Your task to perform on an android device: turn on location history Image 0: 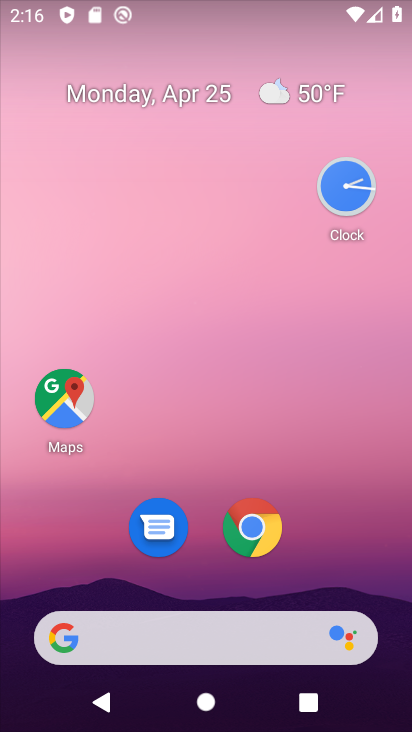
Step 0: drag from (344, 575) to (299, 90)
Your task to perform on an android device: turn on location history Image 1: 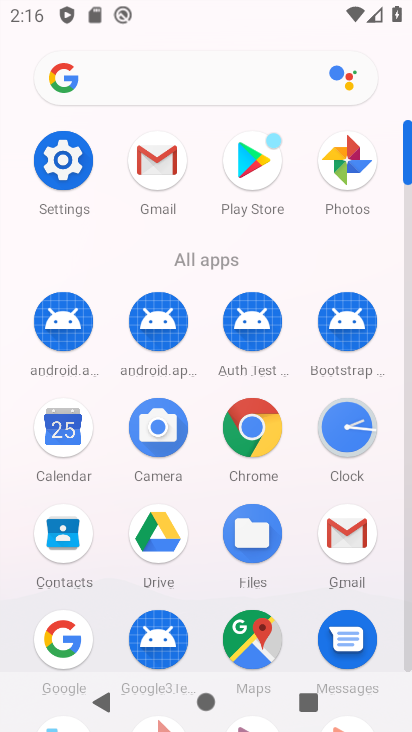
Step 1: drag from (290, 446) to (289, 234)
Your task to perform on an android device: turn on location history Image 2: 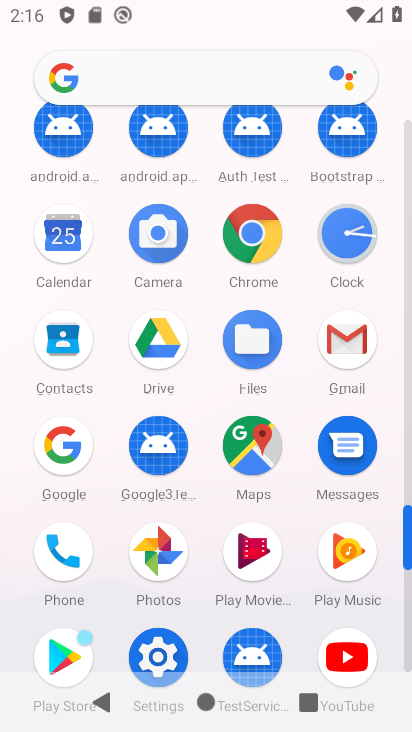
Step 2: drag from (200, 605) to (191, 439)
Your task to perform on an android device: turn on location history Image 3: 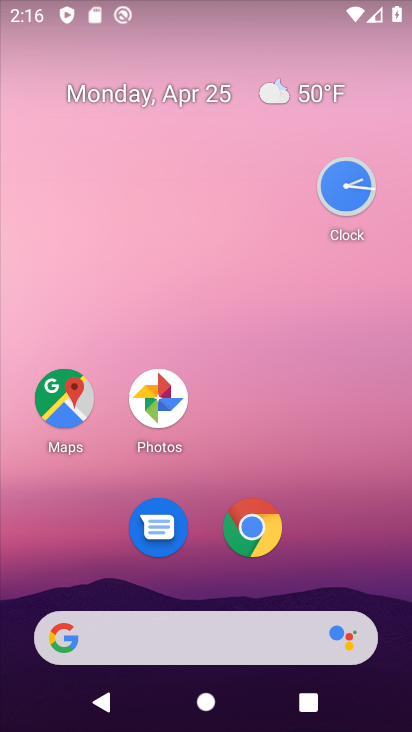
Step 3: drag from (336, 555) to (314, 137)
Your task to perform on an android device: turn on location history Image 4: 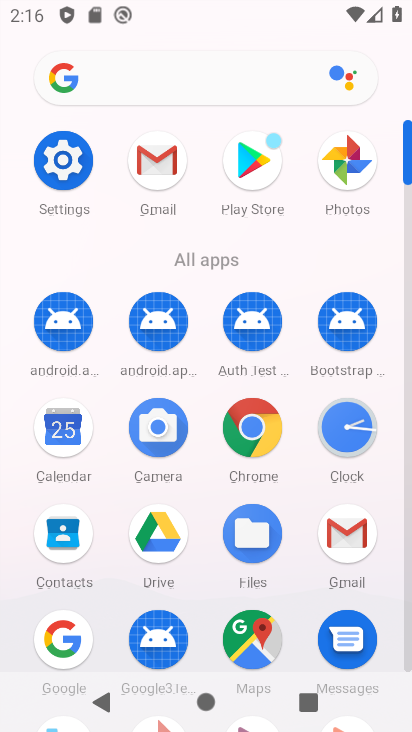
Step 4: click (61, 183)
Your task to perform on an android device: turn on location history Image 5: 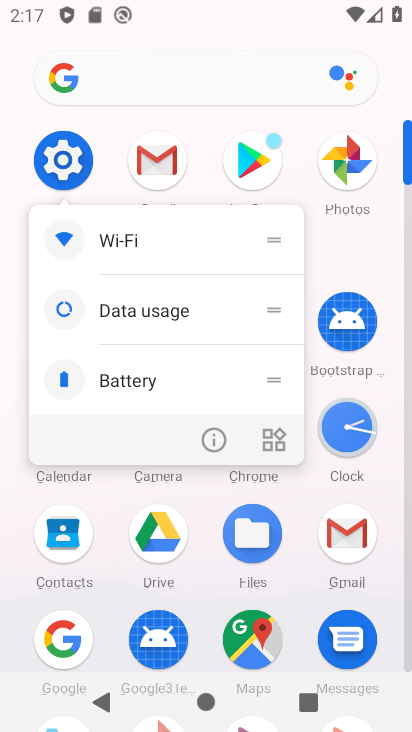
Step 5: click (65, 167)
Your task to perform on an android device: turn on location history Image 6: 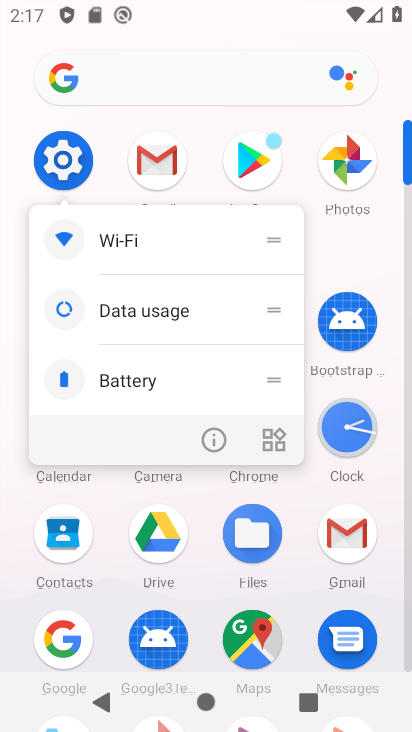
Step 6: click (65, 167)
Your task to perform on an android device: turn on location history Image 7: 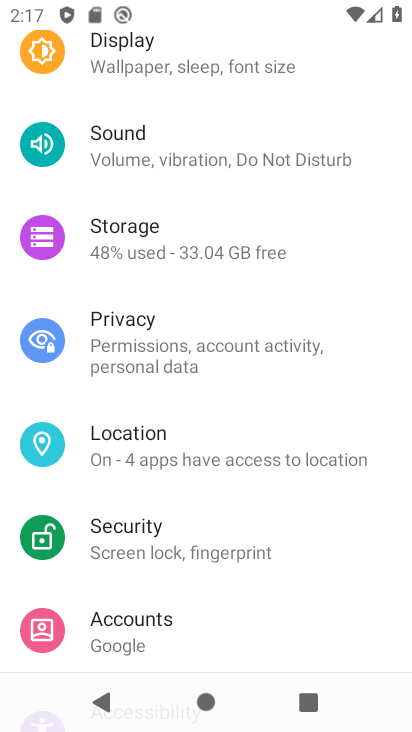
Step 7: drag from (291, 571) to (256, 277)
Your task to perform on an android device: turn on location history Image 8: 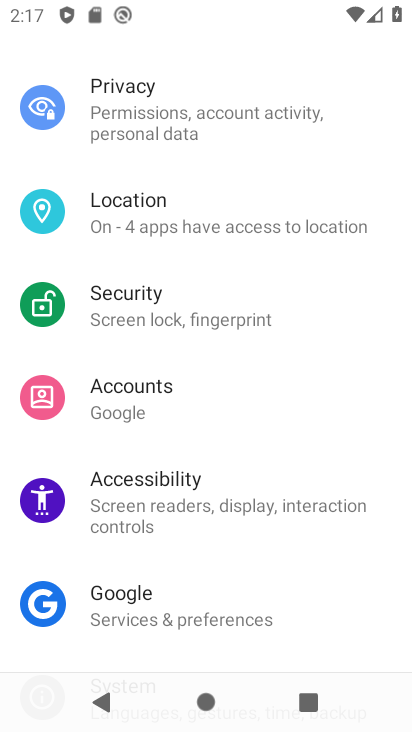
Step 8: click (132, 200)
Your task to perform on an android device: turn on location history Image 9: 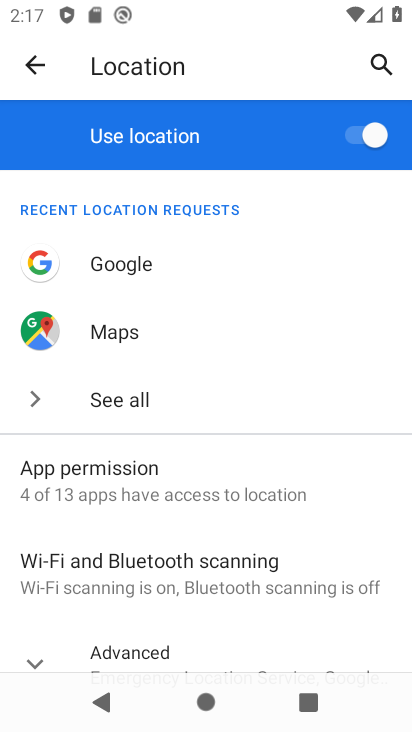
Step 9: drag from (224, 597) to (215, 322)
Your task to perform on an android device: turn on location history Image 10: 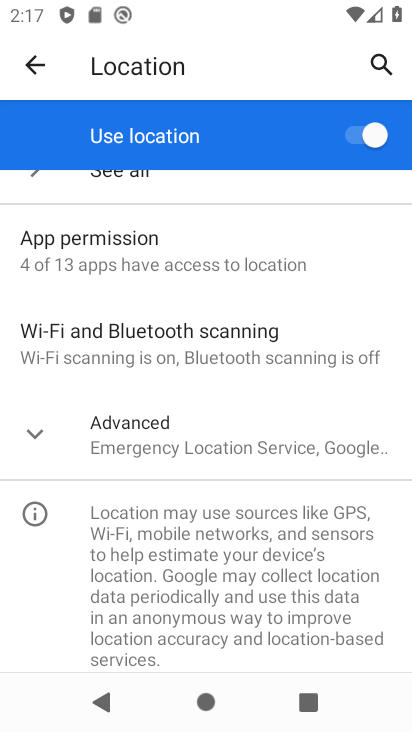
Step 10: click (143, 453)
Your task to perform on an android device: turn on location history Image 11: 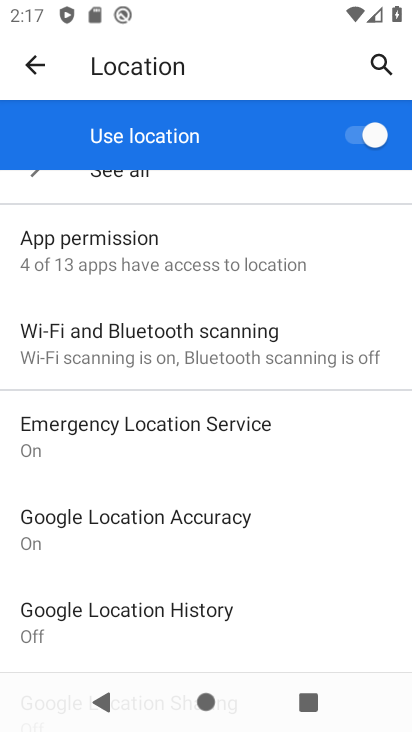
Step 11: click (177, 617)
Your task to perform on an android device: turn on location history Image 12: 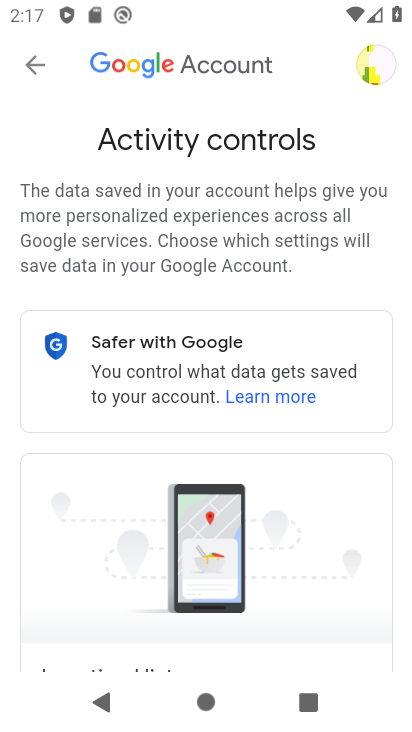
Step 12: task complete